Your task to perform on an android device: all mails in gmail Image 0: 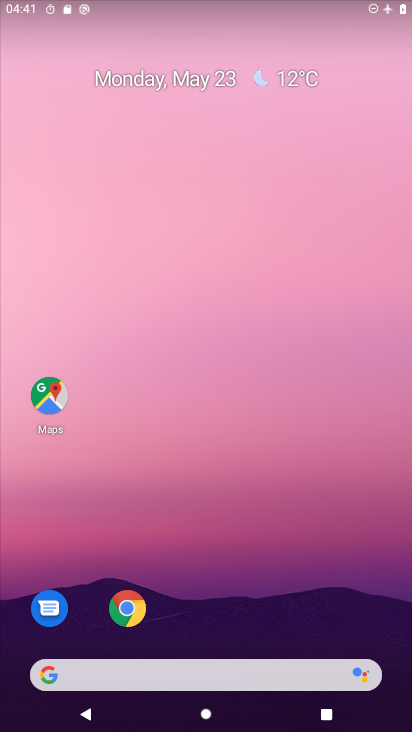
Step 0: drag from (206, 238) to (142, 18)
Your task to perform on an android device: all mails in gmail Image 1: 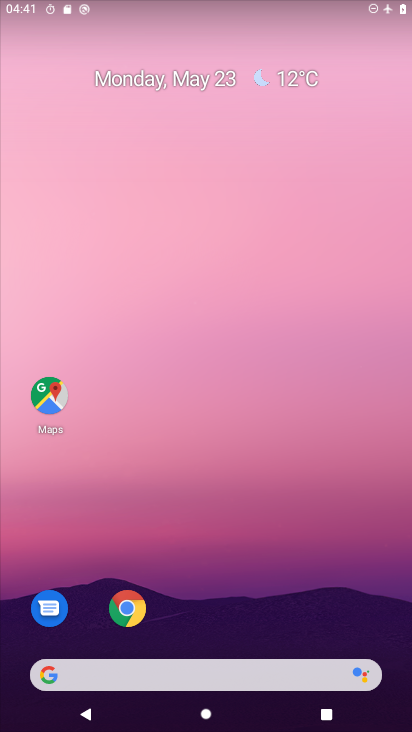
Step 1: drag from (243, 518) to (138, 0)
Your task to perform on an android device: all mails in gmail Image 2: 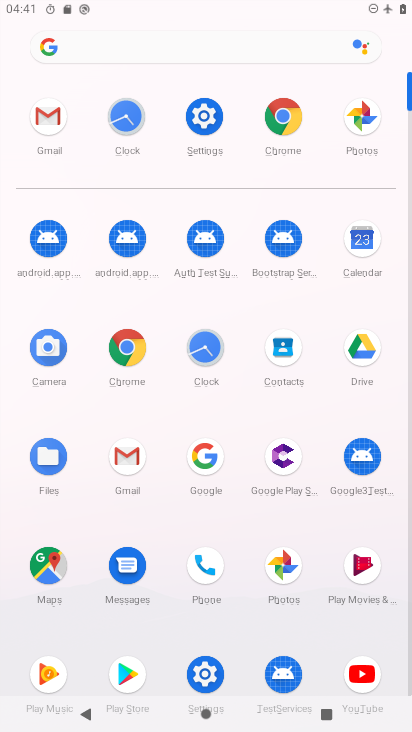
Step 2: click (49, 99)
Your task to perform on an android device: all mails in gmail Image 3: 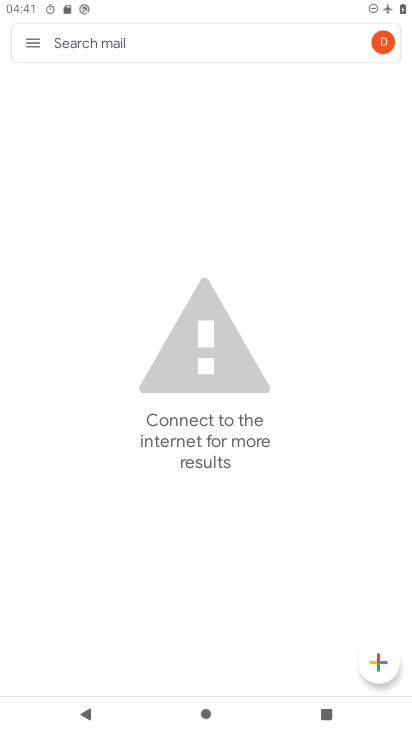
Step 3: click (28, 39)
Your task to perform on an android device: all mails in gmail Image 4: 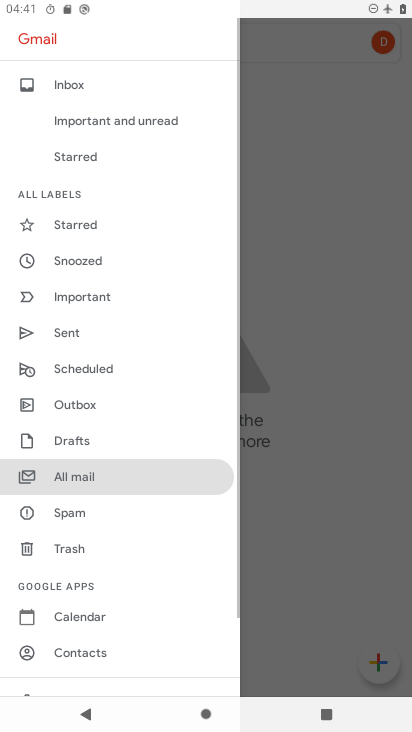
Step 4: click (114, 472)
Your task to perform on an android device: all mails in gmail Image 5: 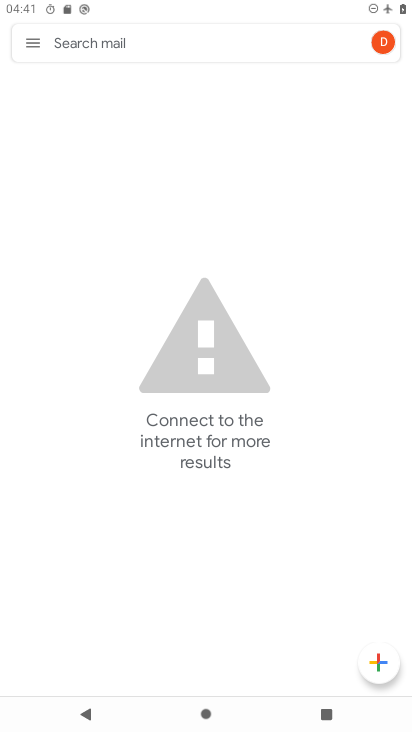
Step 5: task complete